Your task to perform on an android device: Open Yahoo.com Image 0: 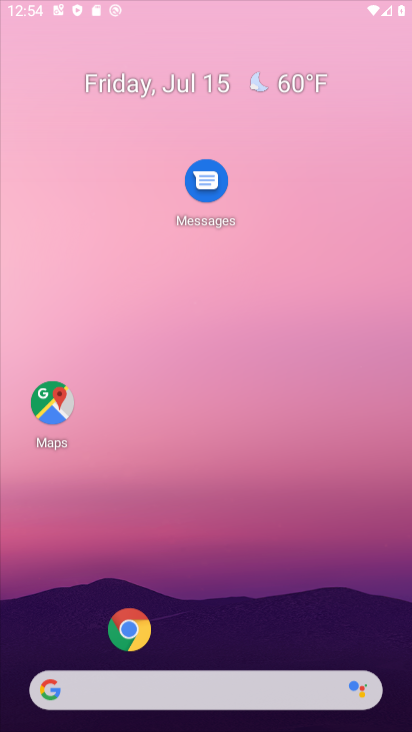
Step 0: click (118, 673)
Your task to perform on an android device: Open Yahoo.com Image 1: 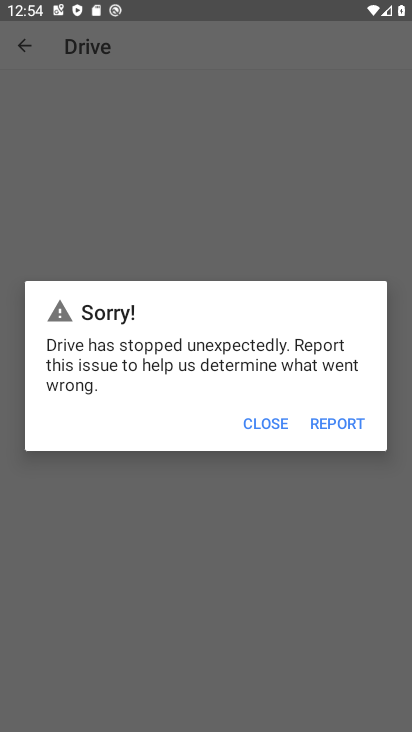
Step 1: click (266, 422)
Your task to perform on an android device: Open Yahoo.com Image 2: 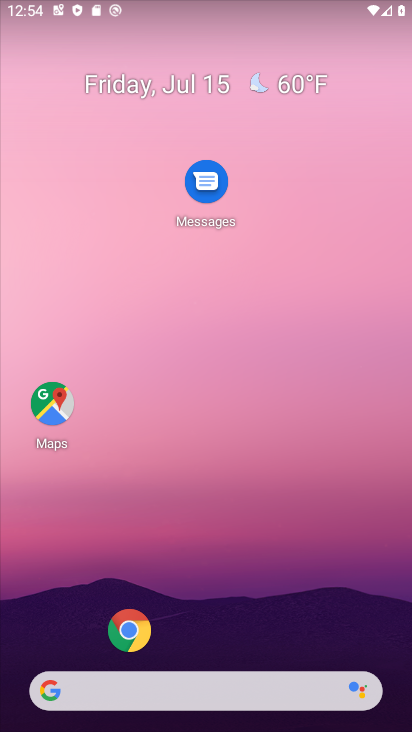
Step 2: click (96, 689)
Your task to perform on an android device: Open Yahoo.com Image 3: 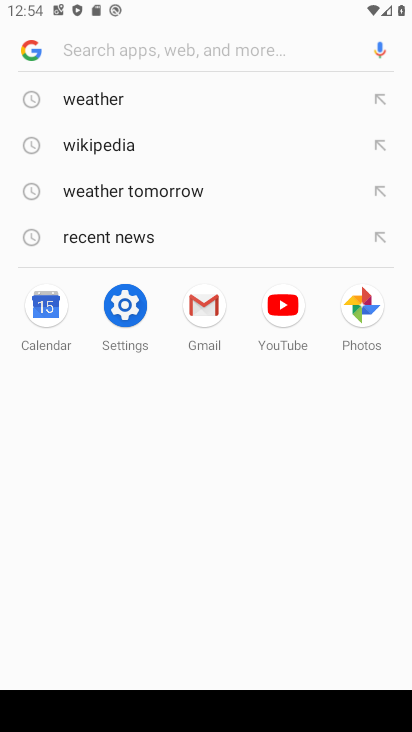
Step 3: type "Yahoo.com"
Your task to perform on an android device: Open Yahoo.com Image 4: 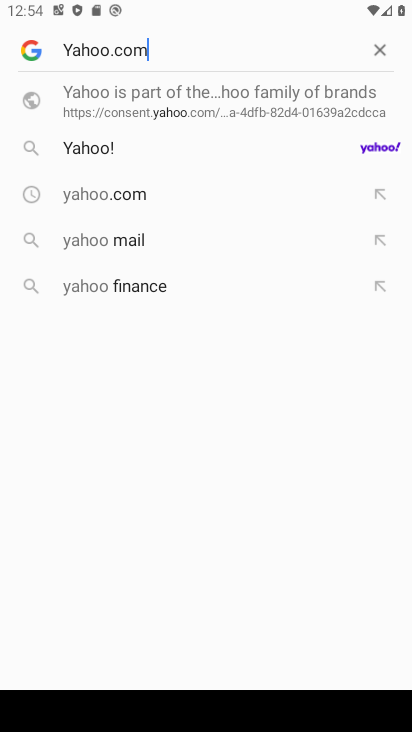
Step 4: type ""
Your task to perform on an android device: Open Yahoo.com Image 5: 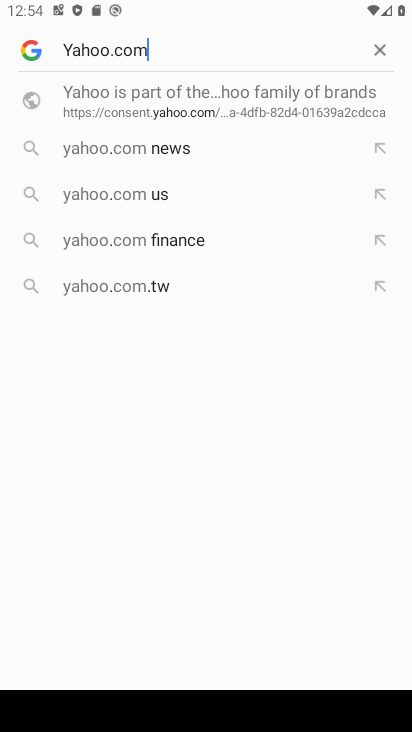
Step 5: type ""
Your task to perform on an android device: Open Yahoo.com Image 6: 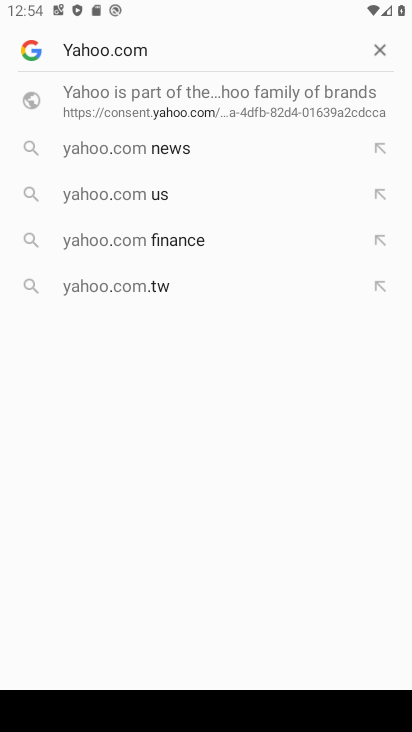
Step 6: type ""
Your task to perform on an android device: Open Yahoo.com Image 7: 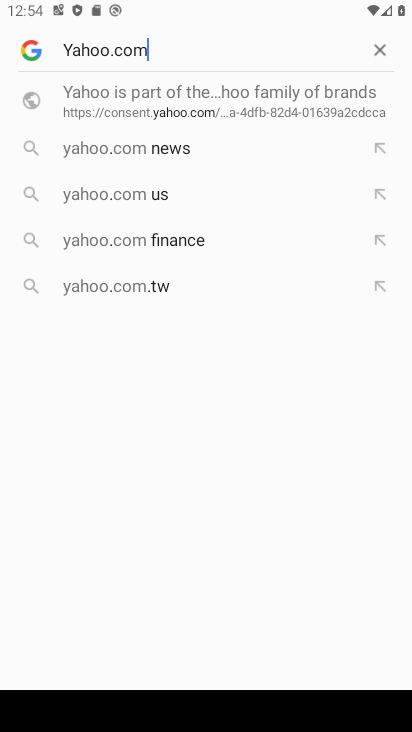
Step 7: task complete